Your task to perform on an android device: turn on javascript in the chrome app Image 0: 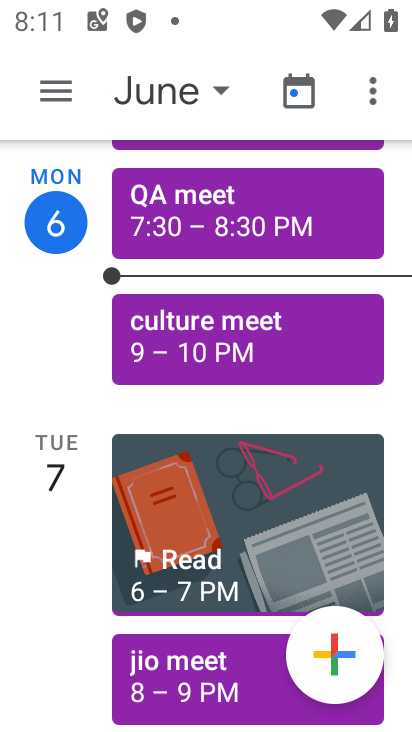
Step 0: press home button
Your task to perform on an android device: turn on javascript in the chrome app Image 1: 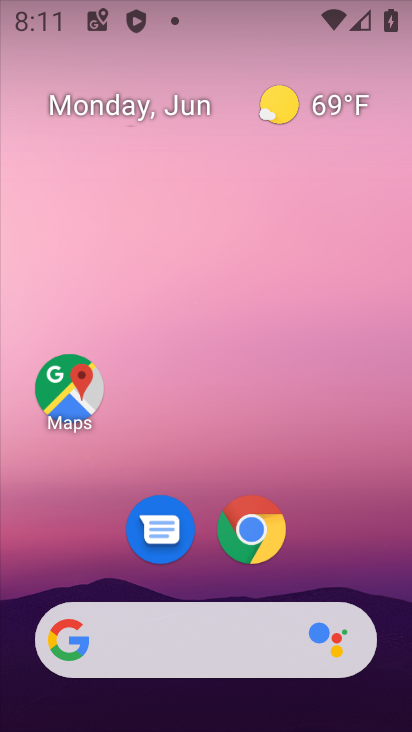
Step 1: click (240, 550)
Your task to perform on an android device: turn on javascript in the chrome app Image 2: 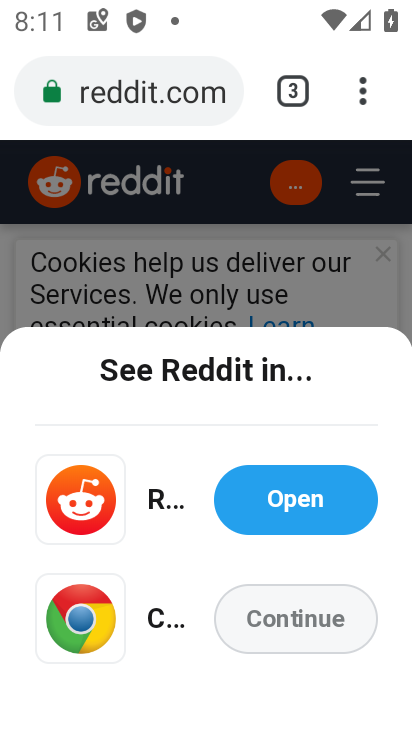
Step 2: click (240, 550)
Your task to perform on an android device: turn on javascript in the chrome app Image 3: 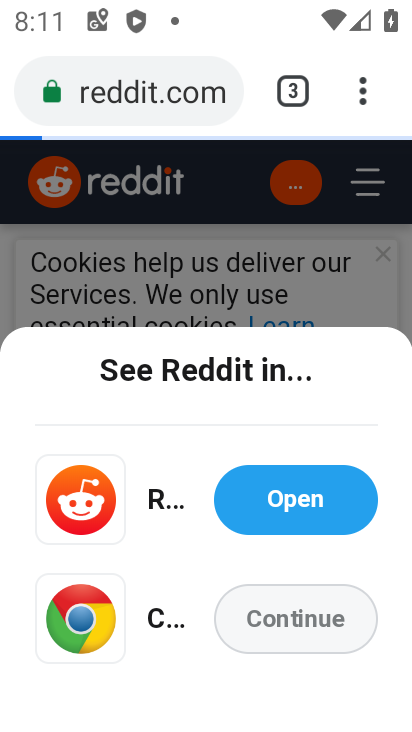
Step 3: click (240, 550)
Your task to perform on an android device: turn on javascript in the chrome app Image 4: 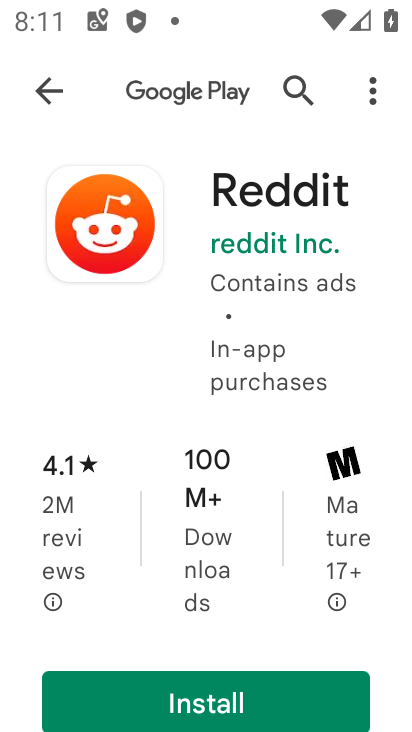
Step 4: press home button
Your task to perform on an android device: turn on javascript in the chrome app Image 5: 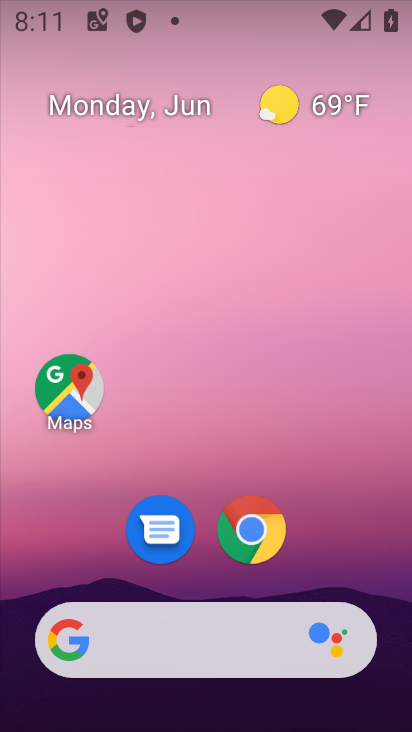
Step 5: click (256, 550)
Your task to perform on an android device: turn on javascript in the chrome app Image 6: 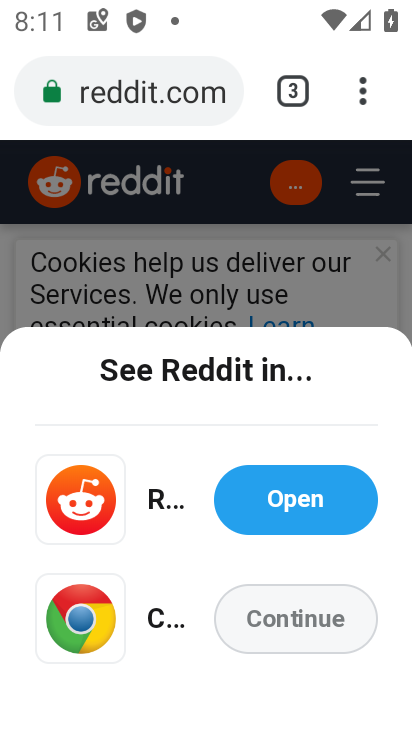
Step 6: click (371, 97)
Your task to perform on an android device: turn on javascript in the chrome app Image 7: 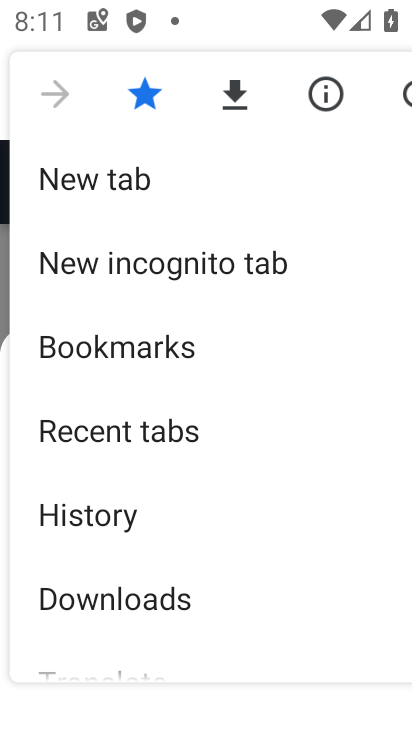
Step 7: drag from (270, 585) to (406, 165)
Your task to perform on an android device: turn on javascript in the chrome app Image 8: 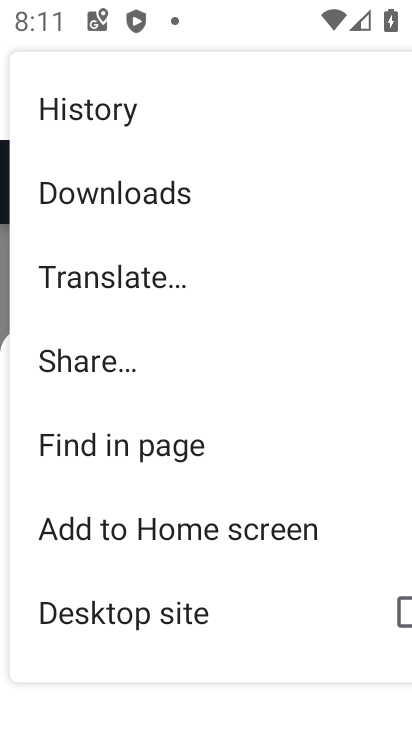
Step 8: drag from (227, 639) to (240, 436)
Your task to perform on an android device: turn on javascript in the chrome app Image 9: 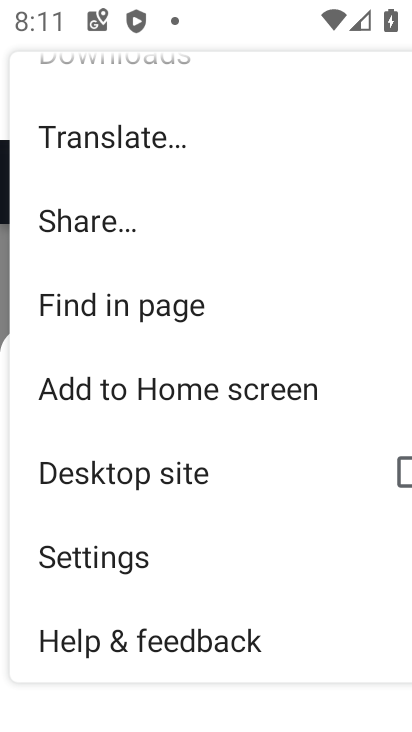
Step 9: click (107, 559)
Your task to perform on an android device: turn on javascript in the chrome app Image 10: 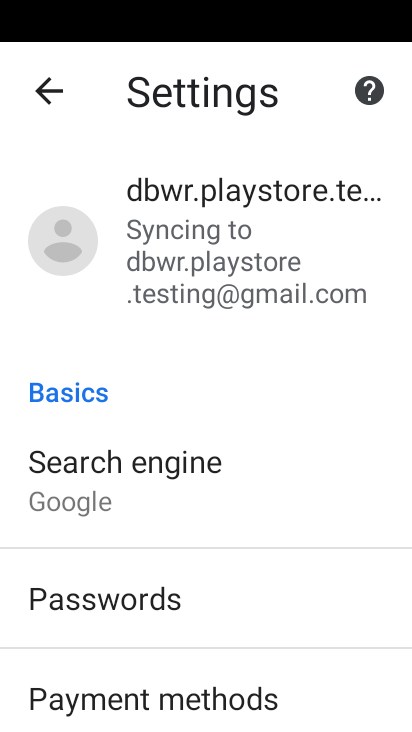
Step 10: drag from (326, 689) to (353, 357)
Your task to perform on an android device: turn on javascript in the chrome app Image 11: 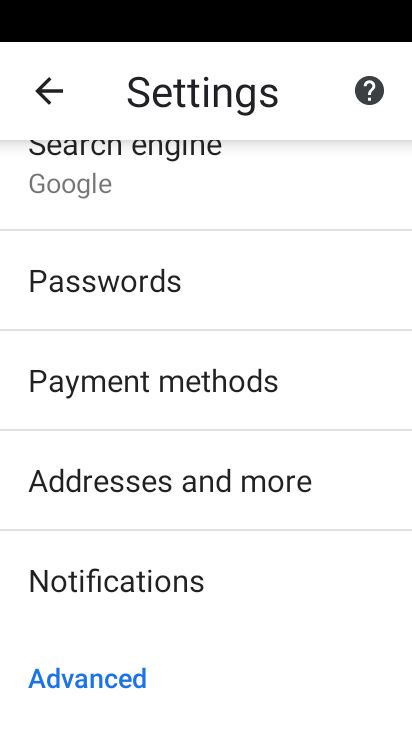
Step 11: drag from (252, 682) to (327, 472)
Your task to perform on an android device: turn on javascript in the chrome app Image 12: 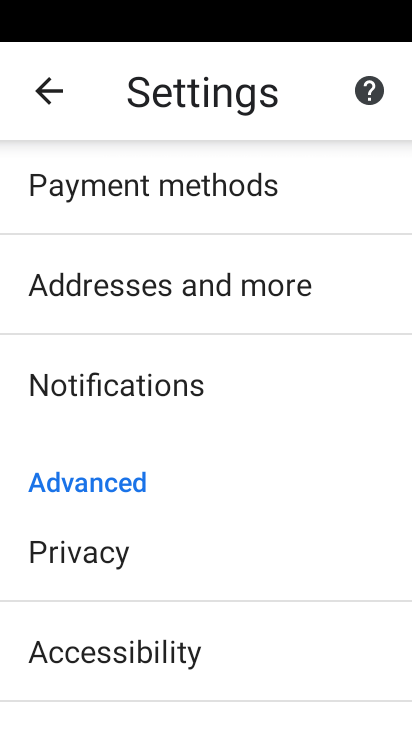
Step 12: drag from (318, 701) to (358, 471)
Your task to perform on an android device: turn on javascript in the chrome app Image 13: 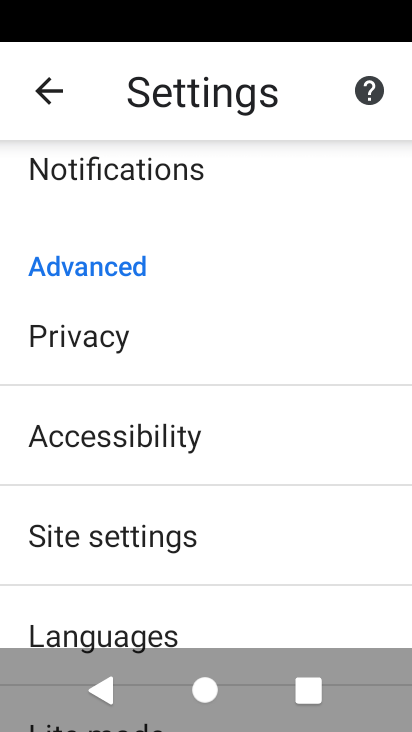
Step 13: click (263, 531)
Your task to perform on an android device: turn on javascript in the chrome app Image 14: 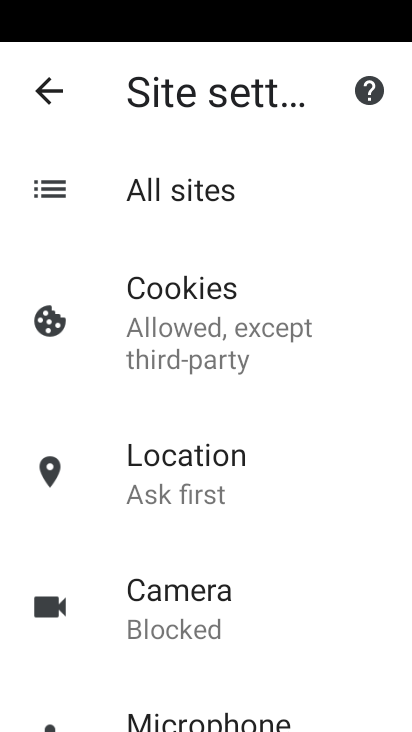
Step 14: drag from (300, 487) to (326, 333)
Your task to perform on an android device: turn on javascript in the chrome app Image 15: 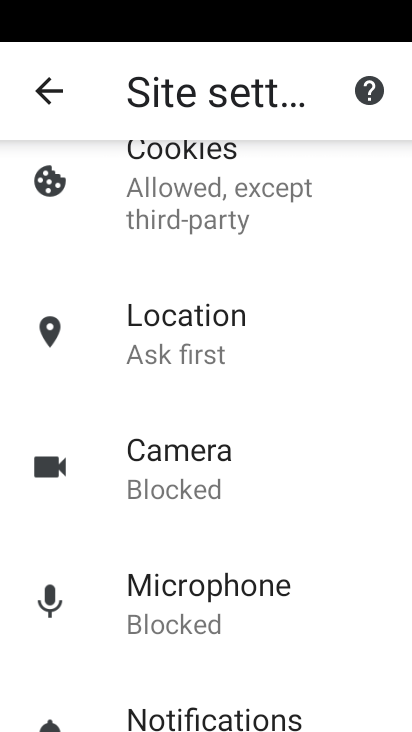
Step 15: drag from (346, 653) to (392, 460)
Your task to perform on an android device: turn on javascript in the chrome app Image 16: 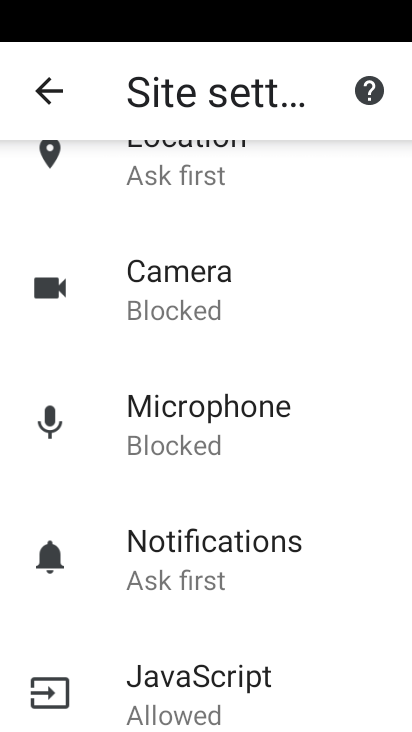
Step 16: click (233, 694)
Your task to perform on an android device: turn on javascript in the chrome app Image 17: 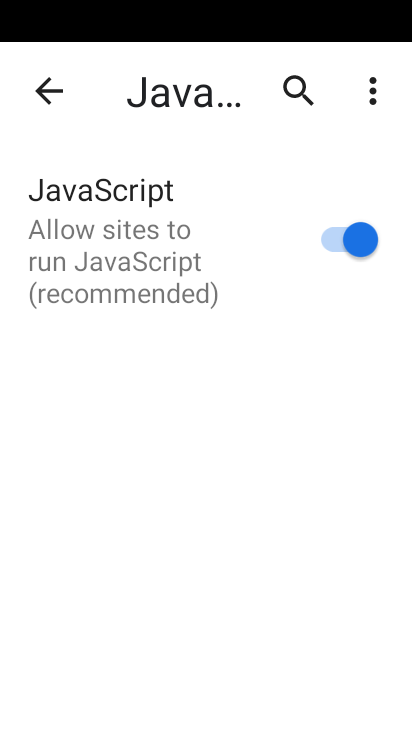
Step 17: task complete